Your task to perform on an android device: Is it going to rain this weekend? Image 0: 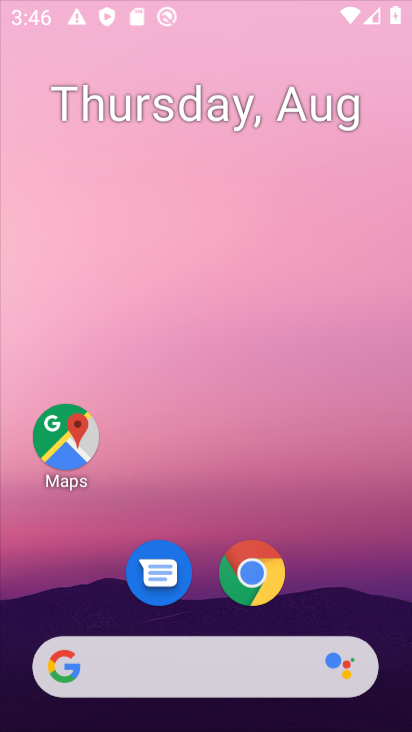
Step 0: press back button
Your task to perform on an android device: Is it going to rain this weekend? Image 1: 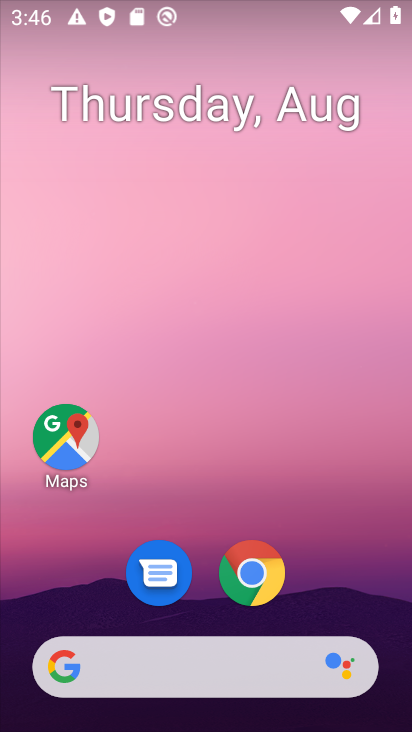
Step 1: drag from (358, 353) to (315, 192)
Your task to perform on an android device: Is it going to rain this weekend? Image 2: 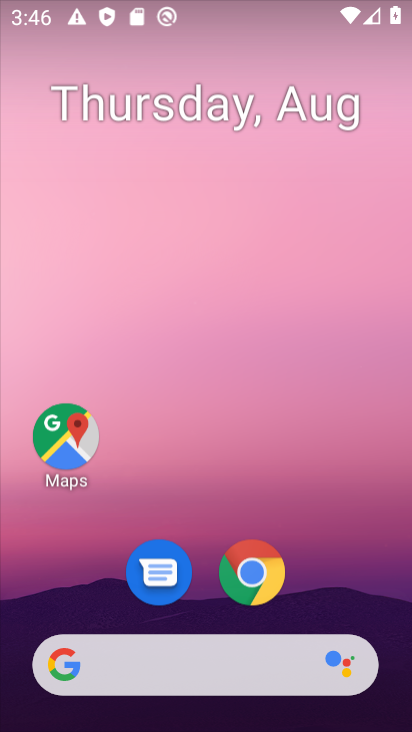
Step 2: drag from (285, 539) to (216, 136)
Your task to perform on an android device: Is it going to rain this weekend? Image 3: 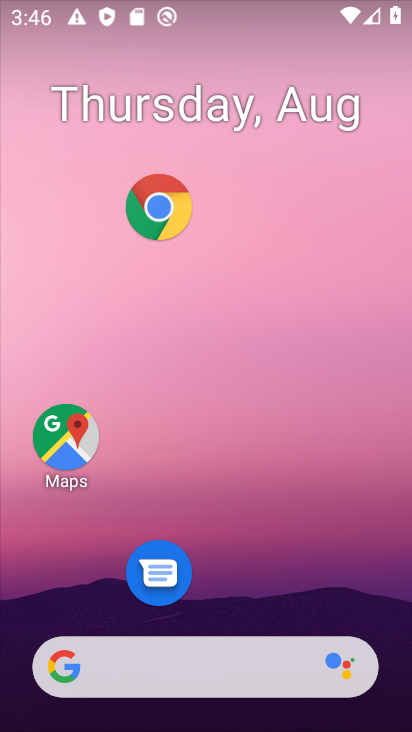
Step 3: drag from (227, 559) to (161, 237)
Your task to perform on an android device: Is it going to rain this weekend? Image 4: 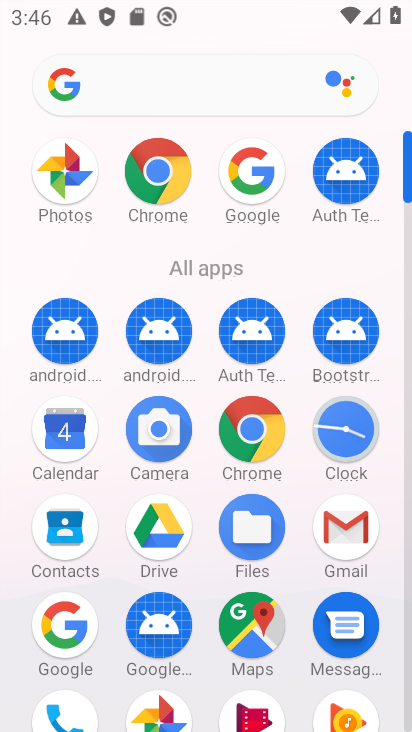
Step 4: click (156, 169)
Your task to perform on an android device: Is it going to rain this weekend? Image 5: 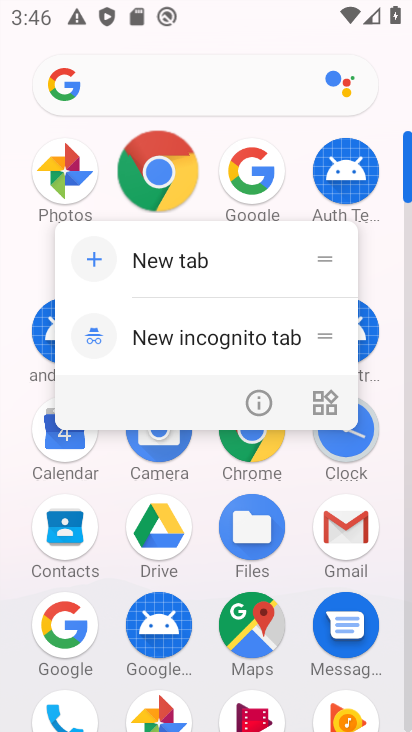
Step 5: click (157, 170)
Your task to perform on an android device: Is it going to rain this weekend? Image 6: 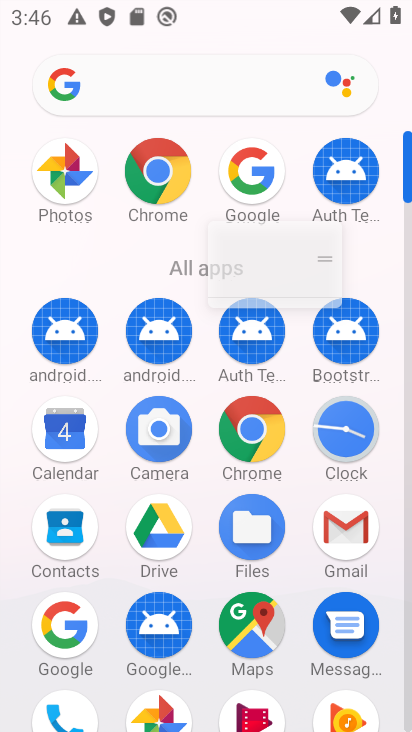
Step 6: click (159, 170)
Your task to perform on an android device: Is it going to rain this weekend? Image 7: 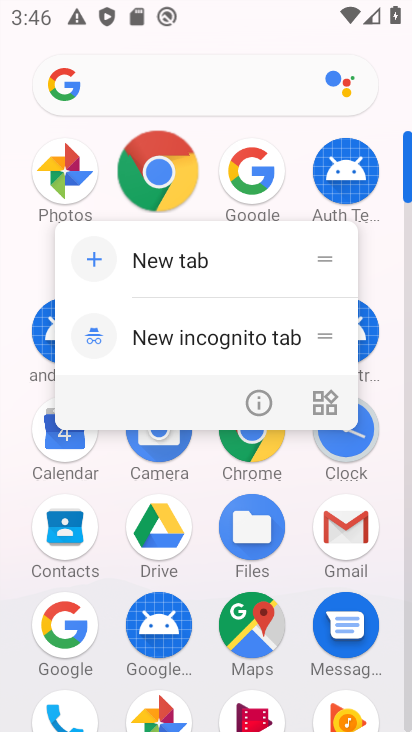
Step 7: click (159, 170)
Your task to perform on an android device: Is it going to rain this weekend? Image 8: 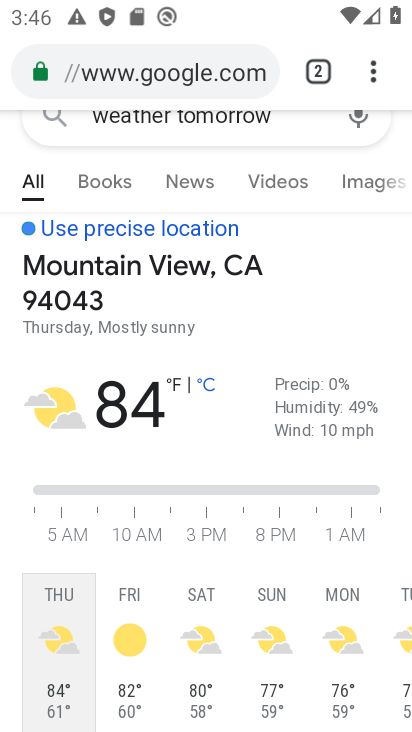
Step 8: task complete